Your task to perform on an android device: toggle sleep mode Image 0: 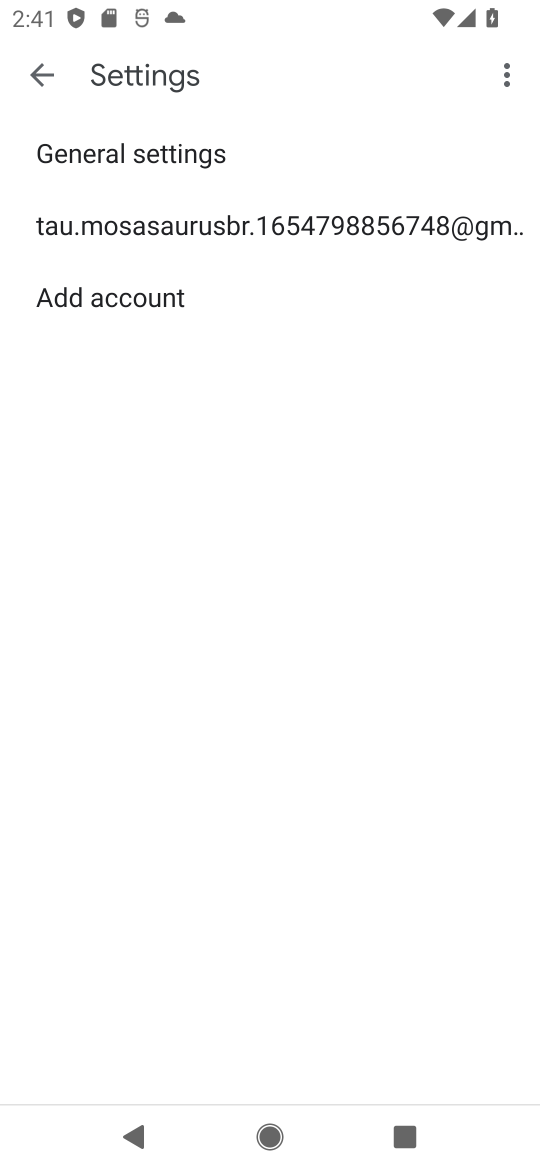
Step 0: press home button
Your task to perform on an android device: toggle sleep mode Image 1: 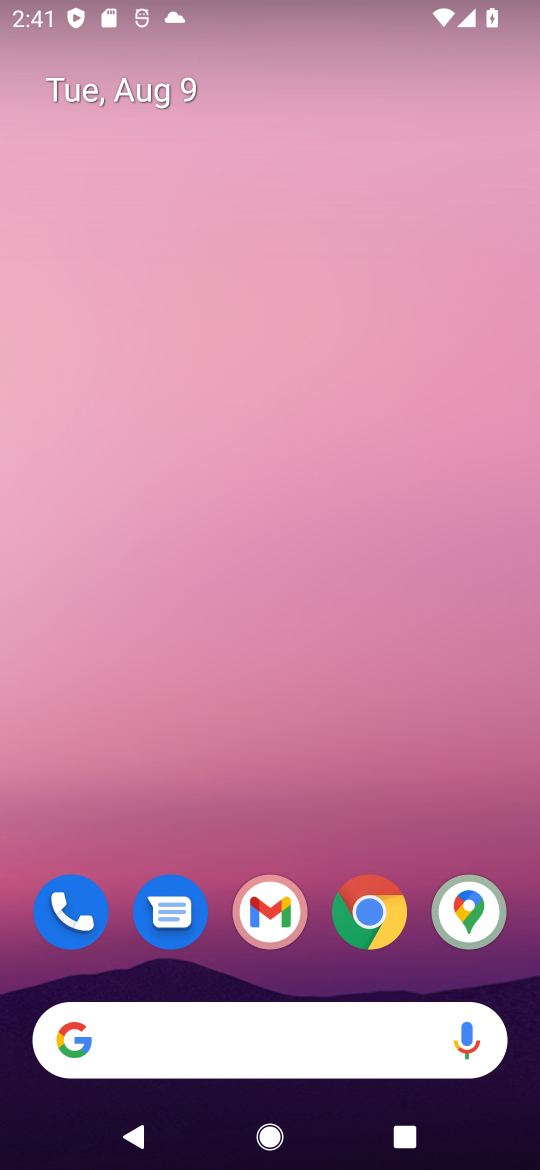
Step 1: drag from (255, 823) to (243, 113)
Your task to perform on an android device: toggle sleep mode Image 2: 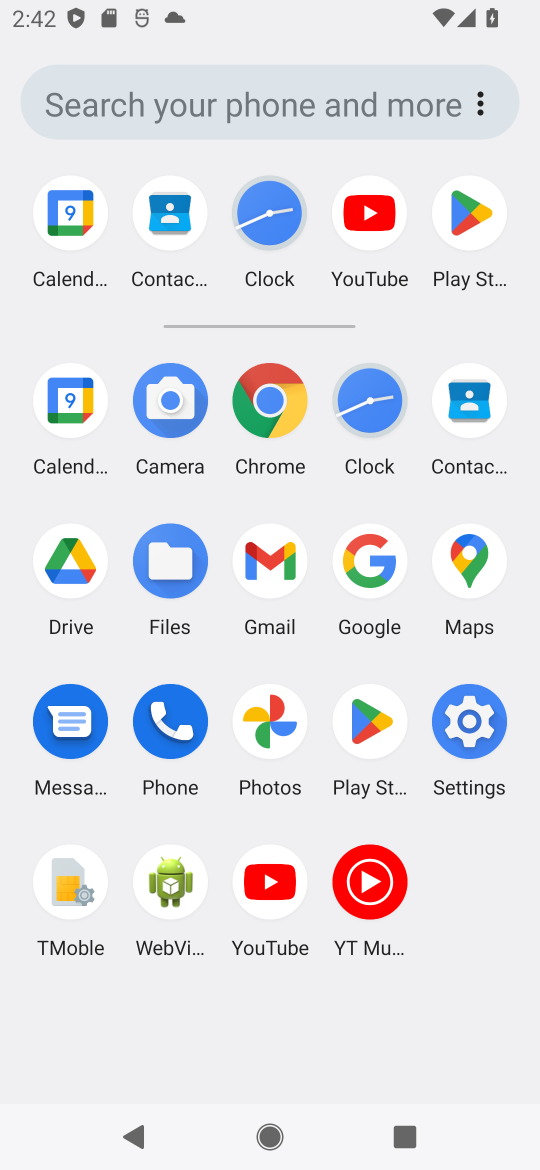
Step 2: click (473, 717)
Your task to perform on an android device: toggle sleep mode Image 3: 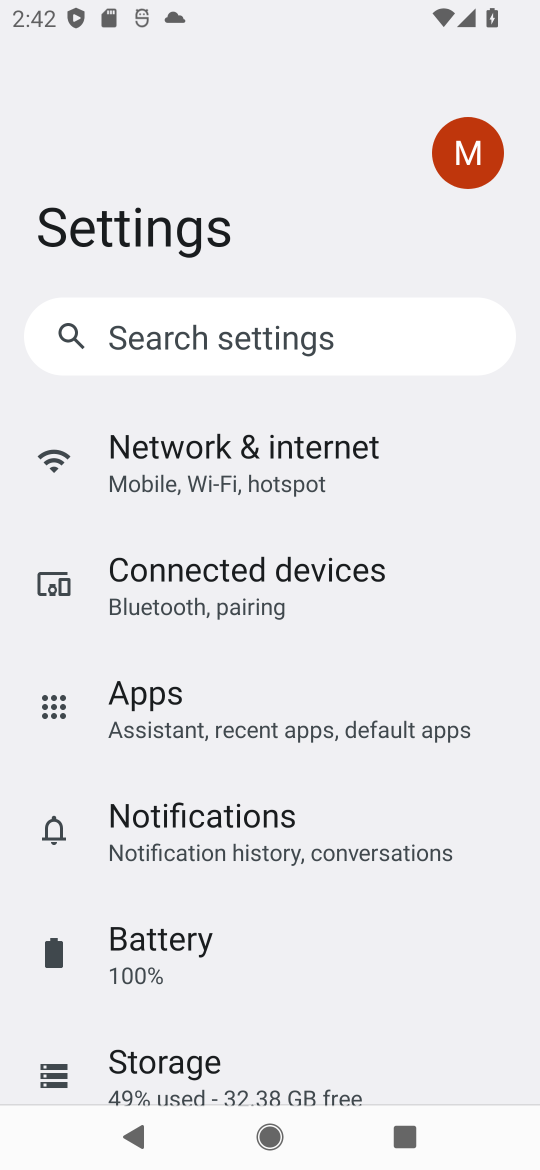
Step 3: task complete